Your task to perform on an android device: change the clock style Image 0: 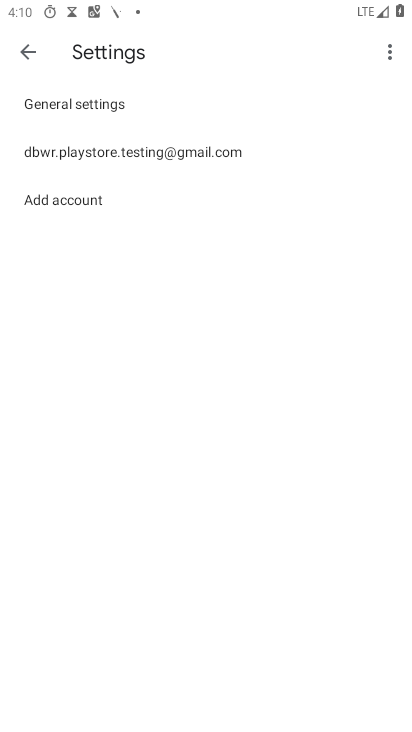
Step 0: press home button
Your task to perform on an android device: change the clock style Image 1: 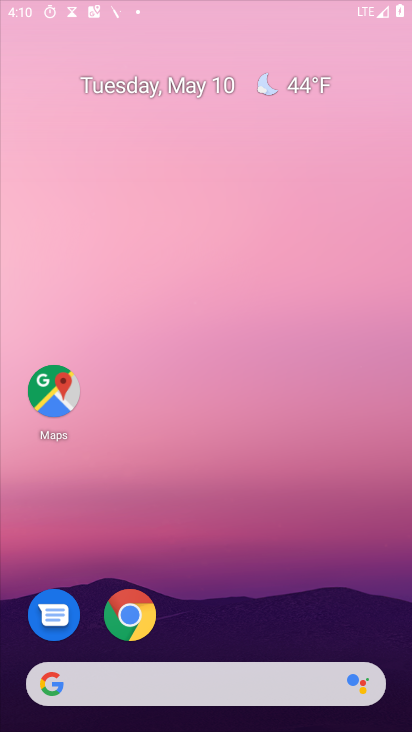
Step 1: drag from (304, 629) to (411, 517)
Your task to perform on an android device: change the clock style Image 2: 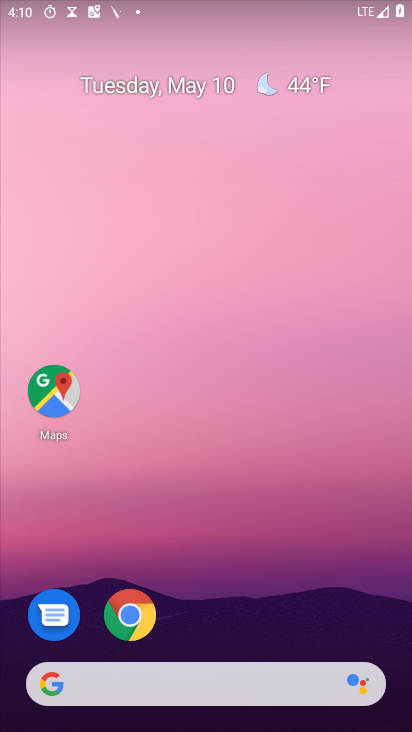
Step 2: drag from (318, 666) to (332, 7)
Your task to perform on an android device: change the clock style Image 3: 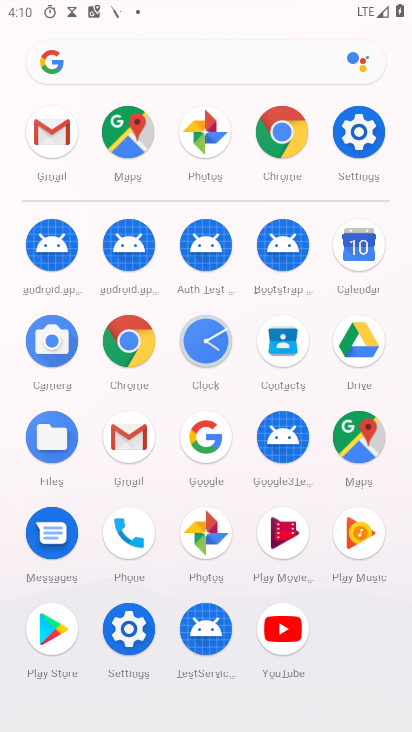
Step 3: click (194, 352)
Your task to perform on an android device: change the clock style Image 4: 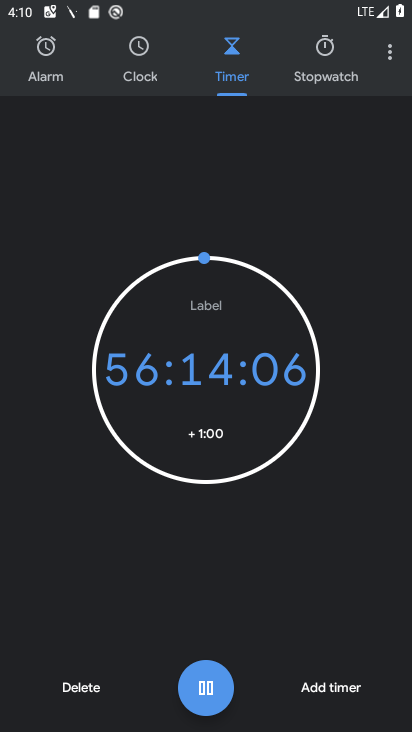
Step 4: click (387, 55)
Your task to perform on an android device: change the clock style Image 5: 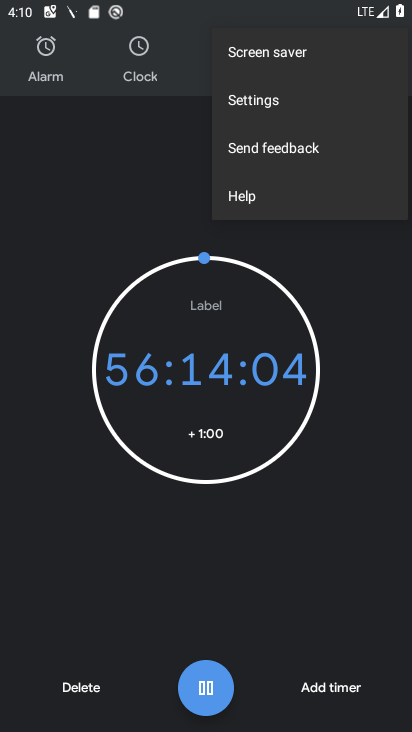
Step 5: click (277, 98)
Your task to perform on an android device: change the clock style Image 6: 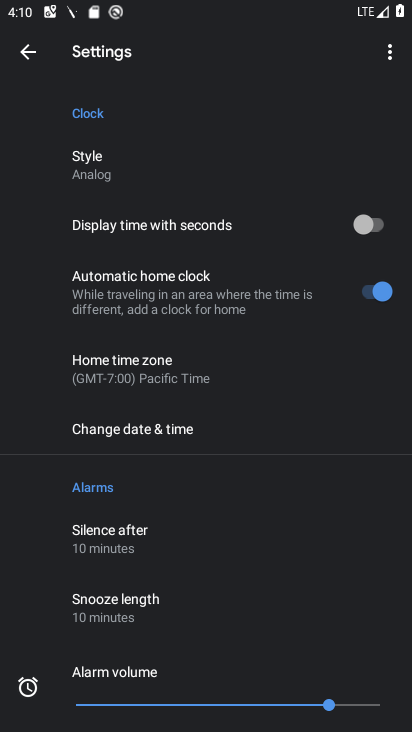
Step 6: click (155, 177)
Your task to perform on an android device: change the clock style Image 7: 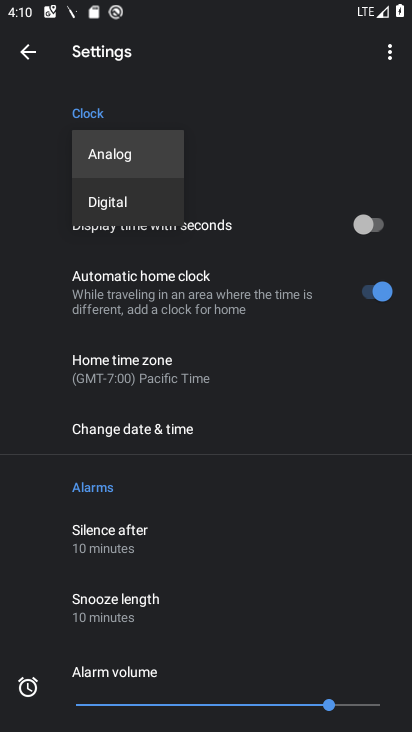
Step 7: click (125, 202)
Your task to perform on an android device: change the clock style Image 8: 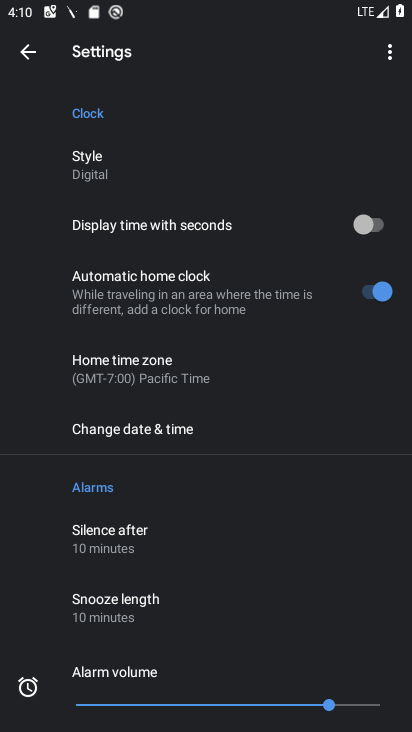
Step 8: task complete